Your task to perform on an android device: Show me the alarms in the clock app Image 0: 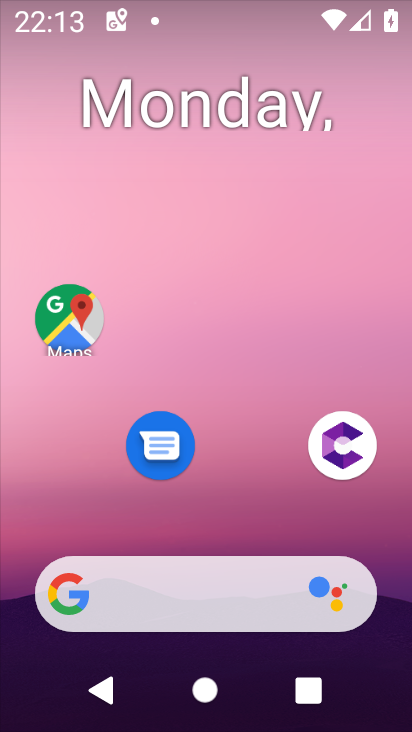
Step 0: press home button
Your task to perform on an android device: Show me the alarms in the clock app Image 1: 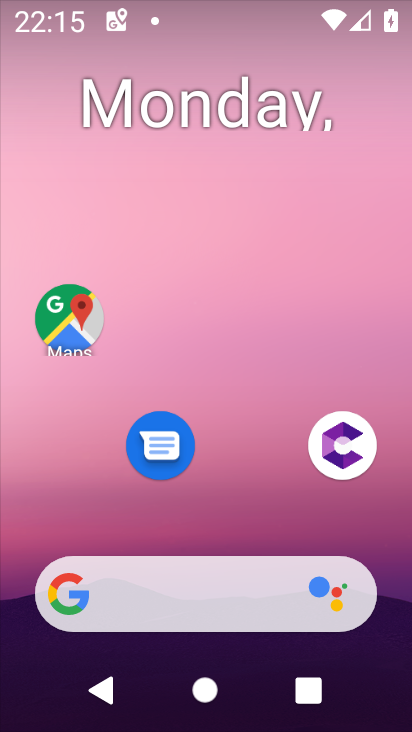
Step 1: drag from (246, 293) to (219, 96)
Your task to perform on an android device: Show me the alarms in the clock app Image 2: 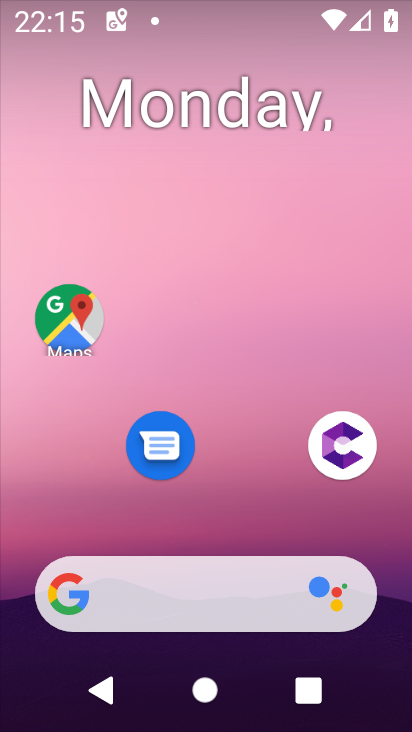
Step 2: drag from (251, 483) to (246, 0)
Your task to perform on an android device: Show me the alarms in the clock app Image 3: 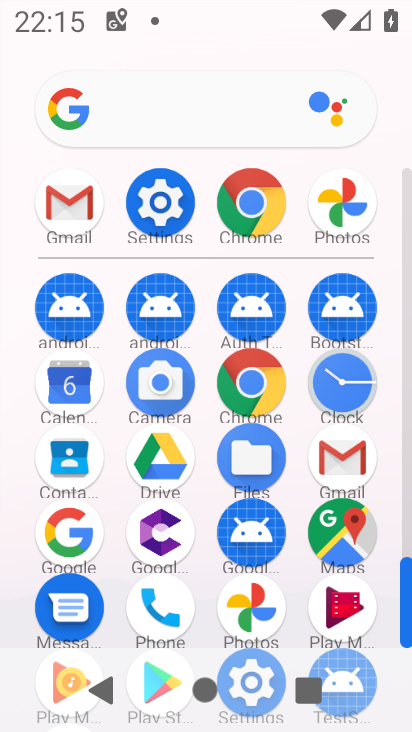
Step 3: click (349, 382)
Your task to perform on an android device: Show me the alarms in the clock app Image 4: 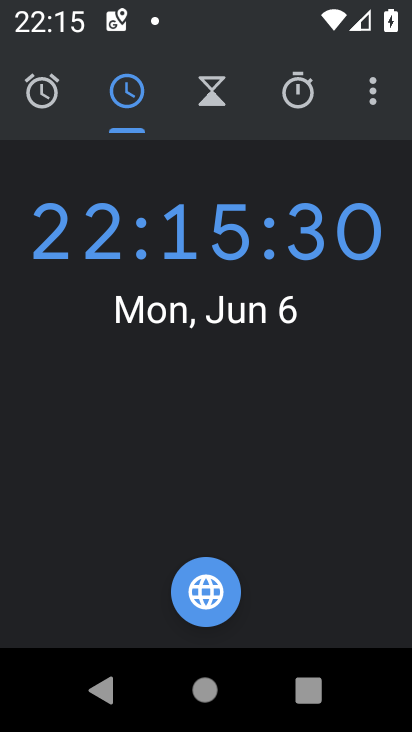
Step 4: click (53, 96)
Your task to perform on an android device: Show me the alarms in the clock app Image 5: 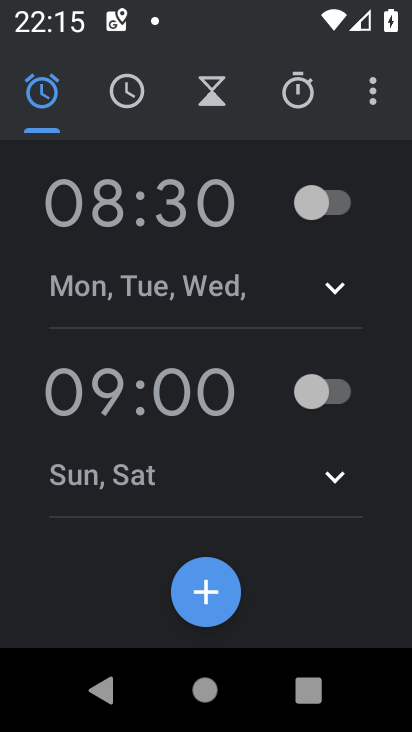
Step 5: task complete